Your task to perform on an android device: Open the map Image 0: 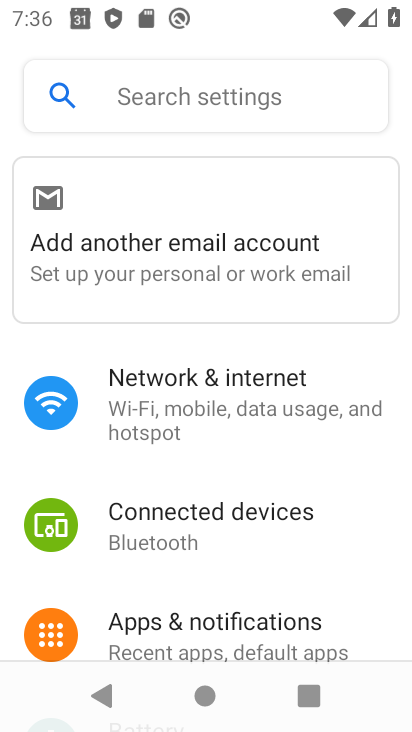
Step 0: press home button
Your task to perform on an android device: Open the map Image 1: 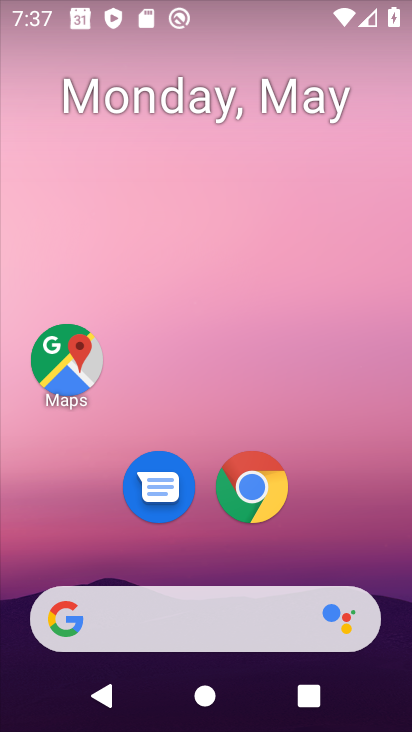
Step 1: click (73, 371)
Your task to perform on an android device: Open the map Image 2: 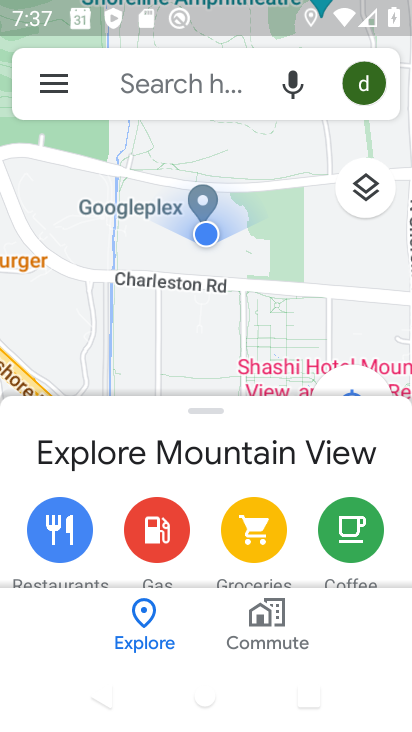
Step 2: task complete